Your task to perform on an android device: turn off priority inbox in the gmail app Image 0: 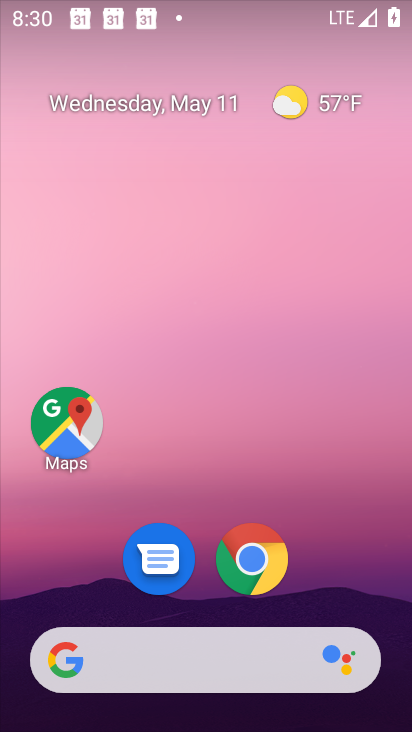
Step 0: drag from (361, 585) to (292, 9)
Your task to perform on an android device: turn off priority inbox in the gmail app Image 1: 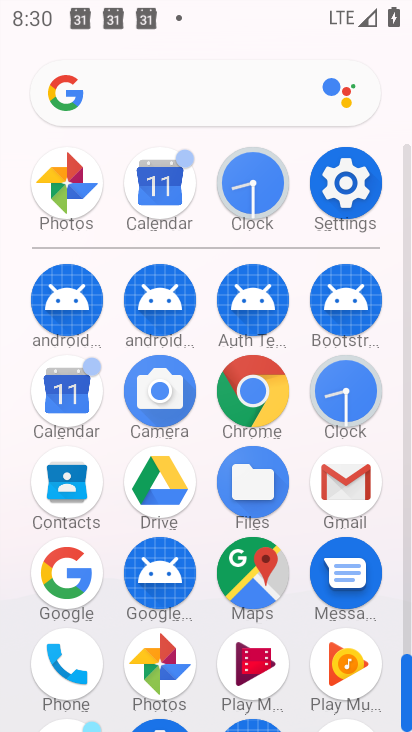
Step 1: click (361, 486)
Your task to perform on an android device: turn off priority inbox in the gmail app Image 2: 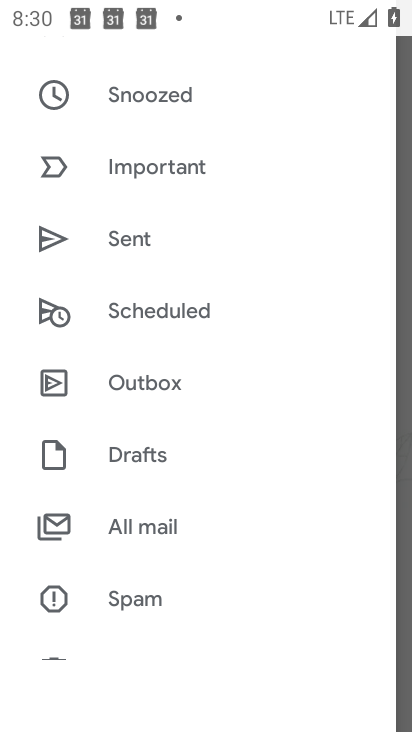
Step 2: drag from (241, 588) to (216, 134)
Your task to perform on an android device: turn off priority inbox in the gmail app Image 3: 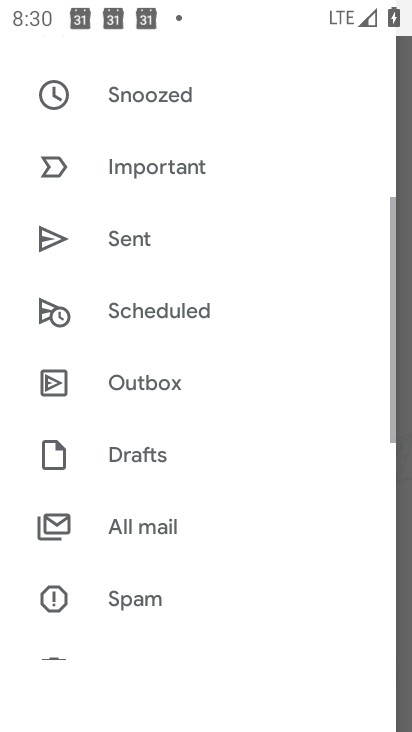
Step 3: drag from (177, 567) to (194, 143)
Your task to perform on an android device: turn off priority inbox in the gmail app Image 4: 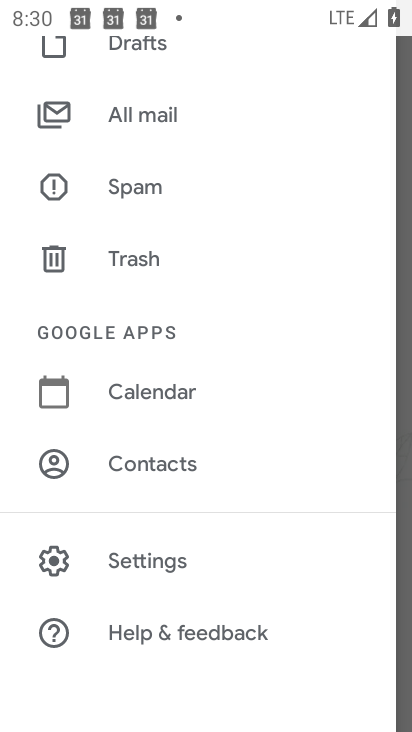
Step 4: click (173, 564)
Your task to perform on an android device: turn off priority inbox in the gmail app Image 5: 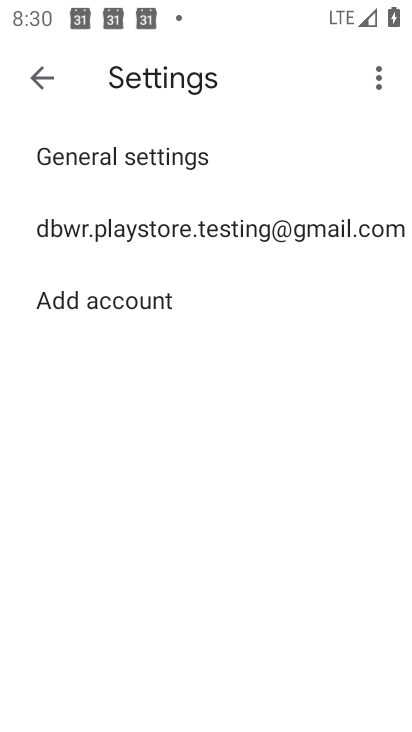
Step 5: click (196, 224)
Your task to perform on an android device: turn off priority inbox in the gmail app Image 6: 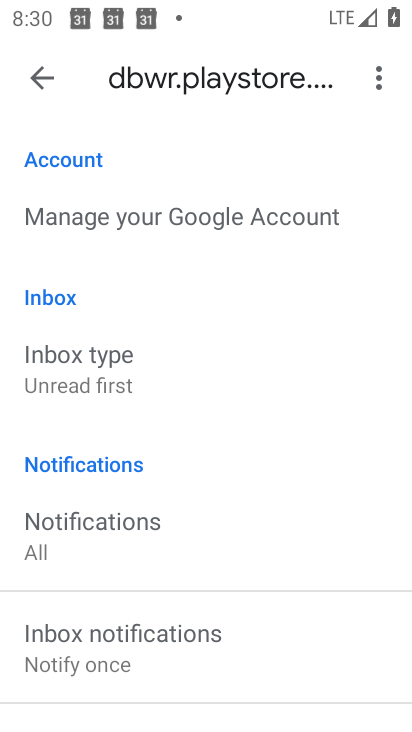
Step 6: click (79, 393)
Your task to perform on an android device: turn off priority inbox in the gmail app Image 7: 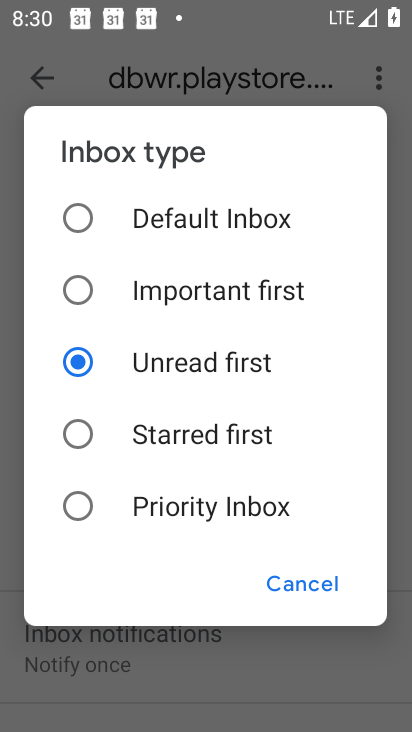
Step 7: click (102, 231)
Your task to perform on an android device: turn off priority inbox in the gmail app Image 8: 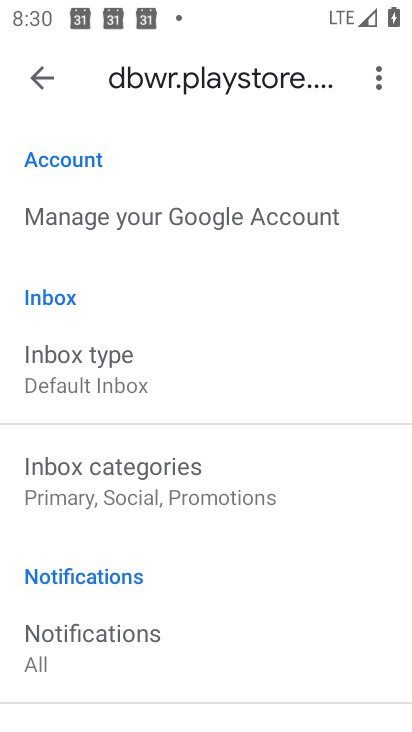
Step 8: task complete